Your task to perform on an android device: turn off location Image 0: 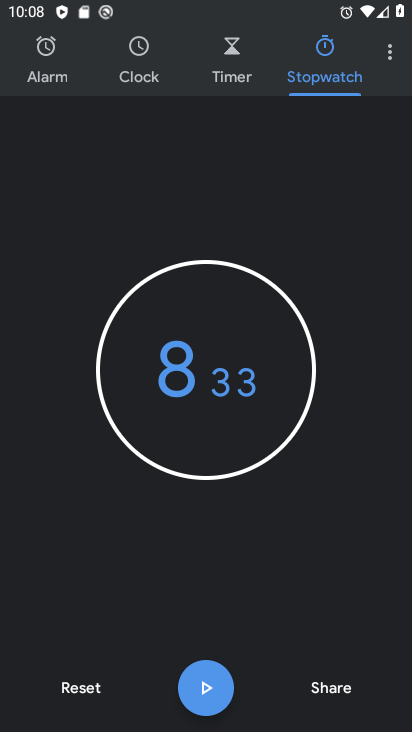
Step 0: press home button
Your task to perform on an android device: turn off location Image 1: 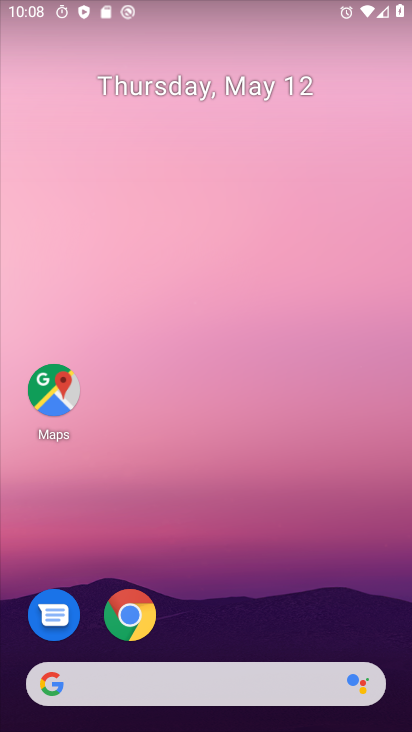
Step 1: drag from (318, 544) to (292, 88)
Your task to perform on an android device: turn off location Image 2: 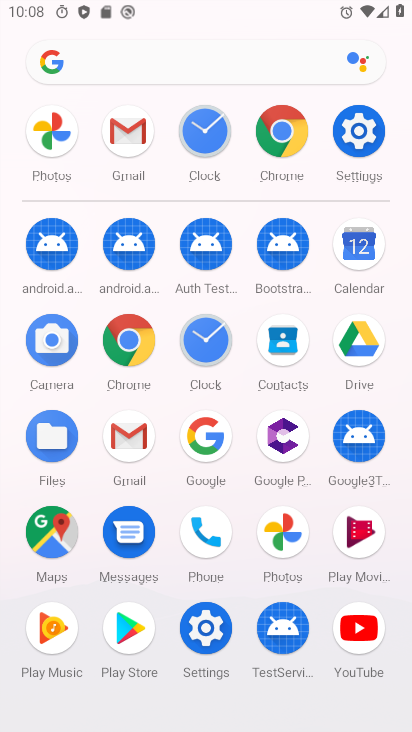
Step 2: click (352, 145)
Your task to perform on an android device: turn off location Image 3: 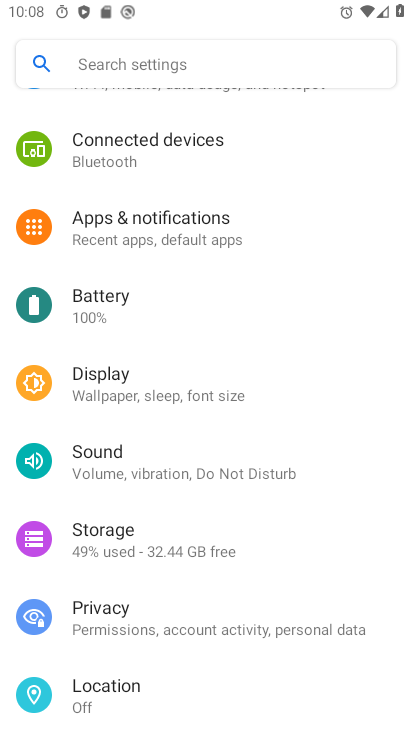
Step 3: drag from (149, 611) to (216, 309)
Your task to perform on an android device: turn off location Image 4: 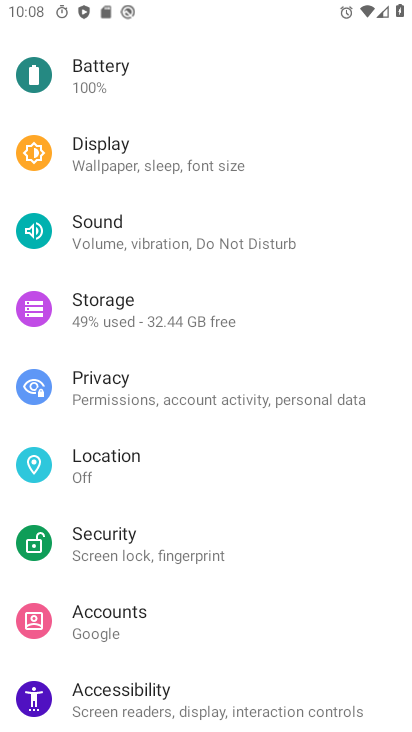
Step 4: click (144, 475)
Your task to perform on an android device: turn off location Image 5: 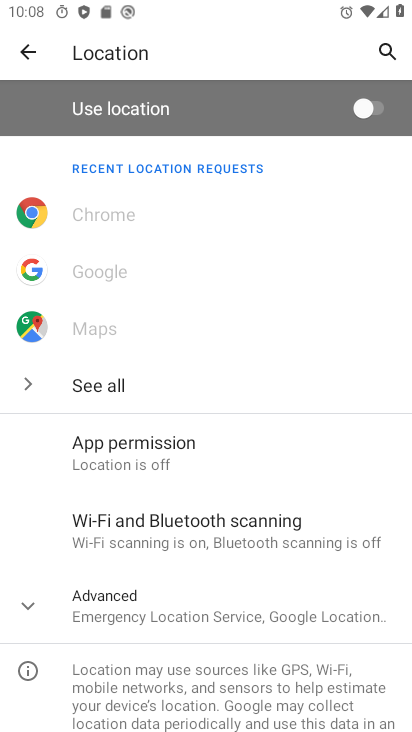
Step 5: task complete